Your task to perform on an android device: Open CNN.com Image 0: 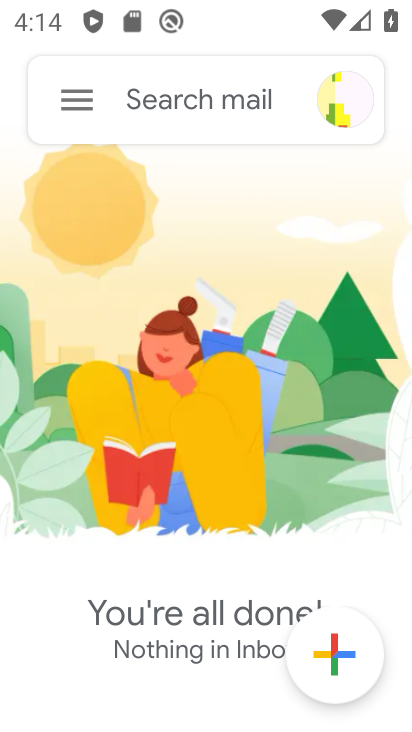
Step 0: press back button
Your task to perform on an android device: Open CNN.com Image 1: 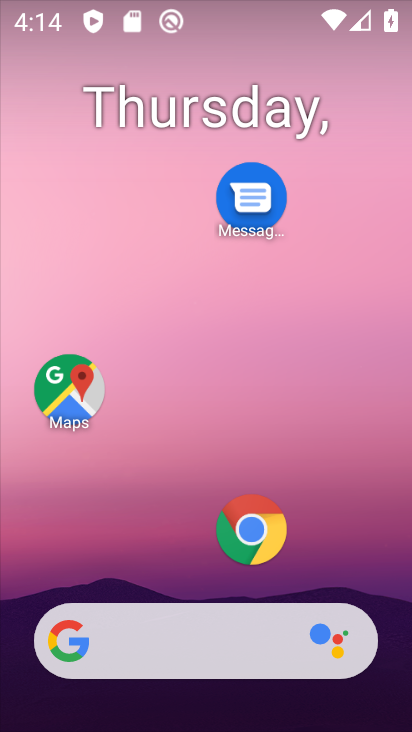
Step 1: click (264, 516)
Your task to perform on an android device: Open CNN.com Image 2: 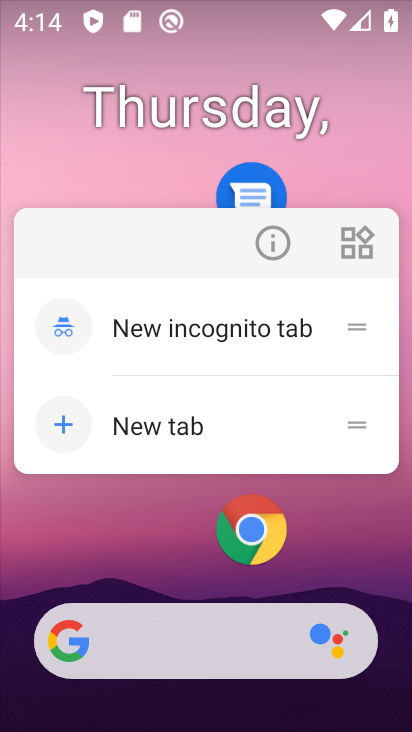
Step 2: click (258, 524)
Your task to perform on an android device: Open CNN.com Image 3: 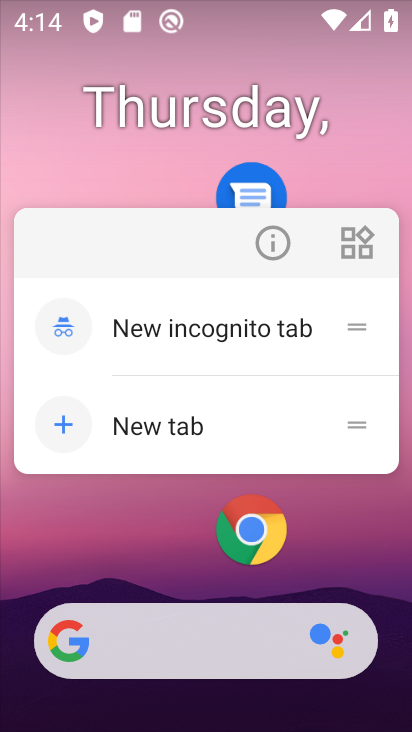
Step 3: click (252, 525)
Your task to perform on an android device: Open CNN.com Image 4: 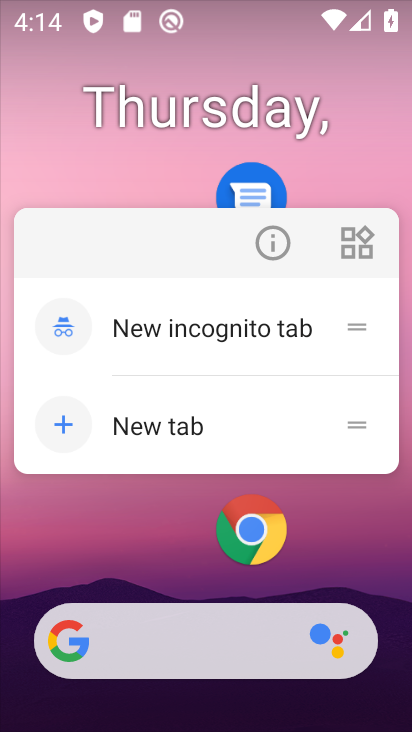
Step 4: click (256, 534)
Your task to perform on an android device: Open CNN.com Image 5: 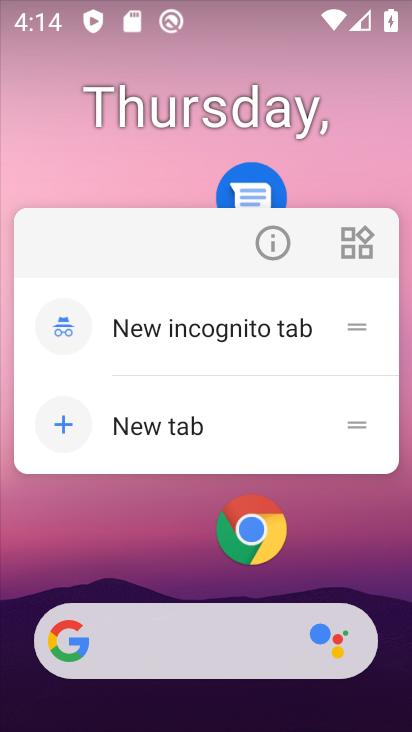
Step 5: click (256, 534)
Your task to perform on an android device: Open CNN.com Image 6: 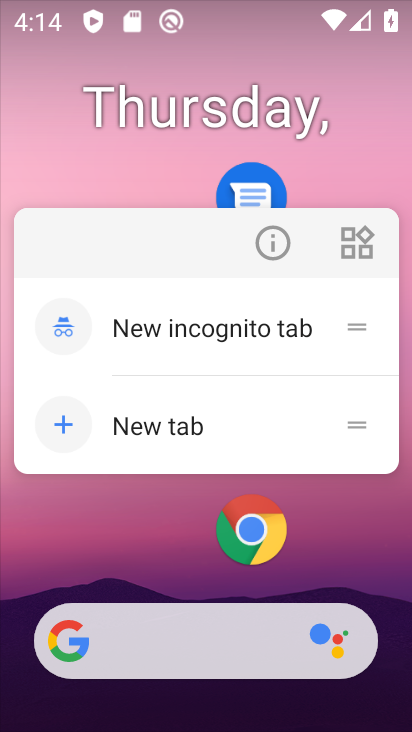
Step 6: click (257, 534)
Your task to perform on an android device: Open CNN.com Image 7: 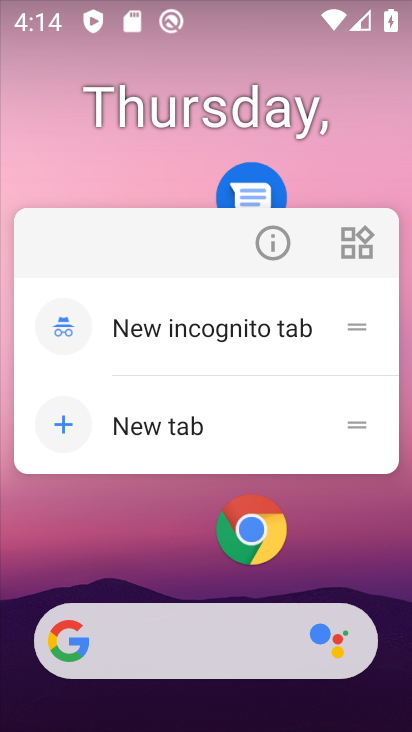
Step 7: click (242, 538)
Your task to perform on an android device: Open CNN.com Image 8: 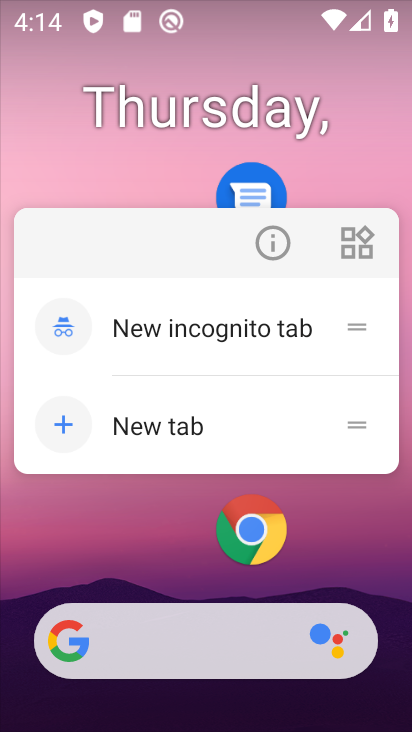
Step 8: click (263, 522)
Your task to perform on an android device: Open CNN.com Image 9: 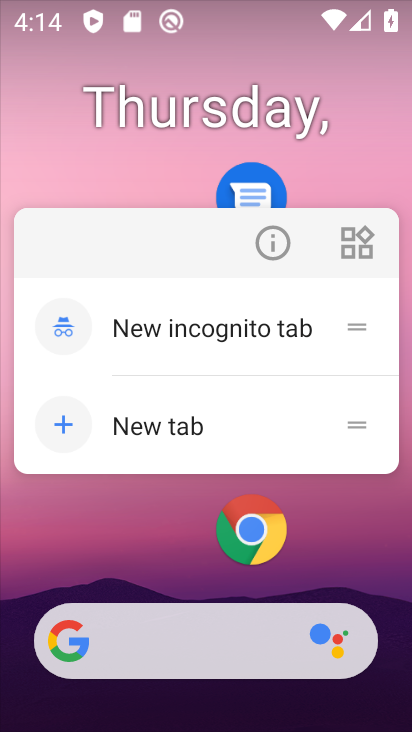
Step 9: click (253, 520)
Your task to perform on an android device: Open CNN.com Image 10: 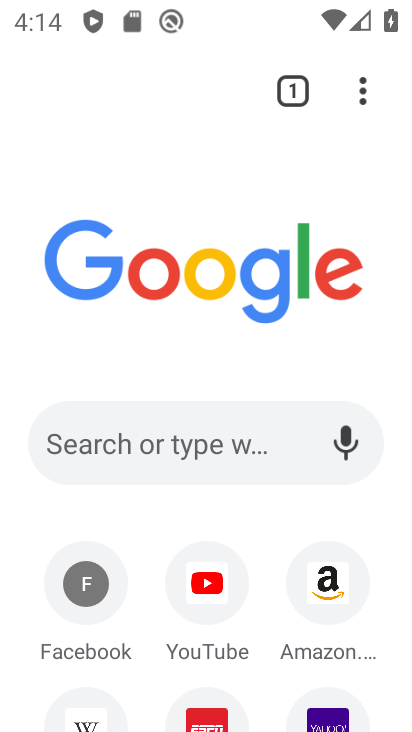
Step 10: click (157, 435)
Your task to perform on an android device: Open CNN.com Image 11: 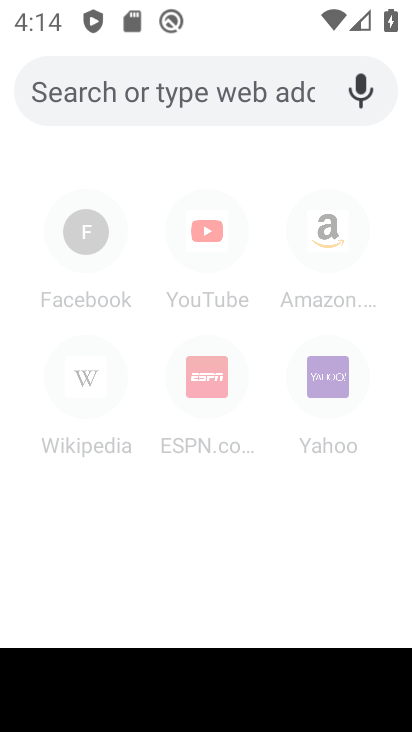
Step 11: type "cnn.com"
Your task to perform on an android device: Open CNN.com Image 12: 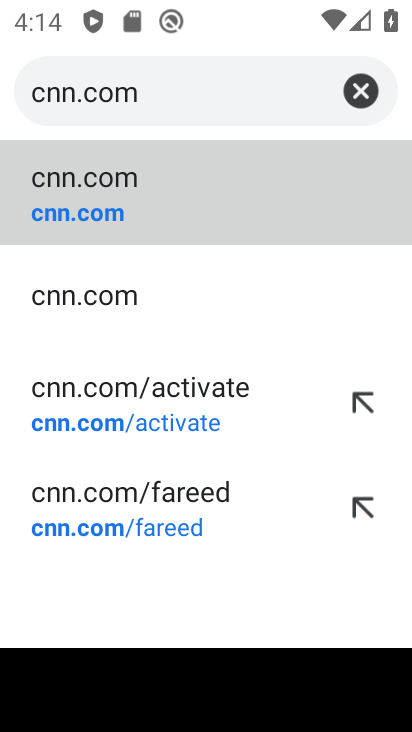
Step 12: click (161, 182)
Your task to perform on an android device: Open CNN.com Image 13: 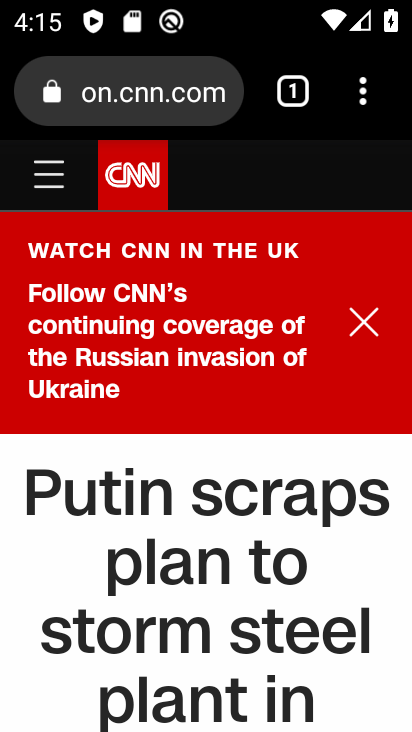
Step 13: task complete